Your task to perform on an android device: Go to Google Image 0: 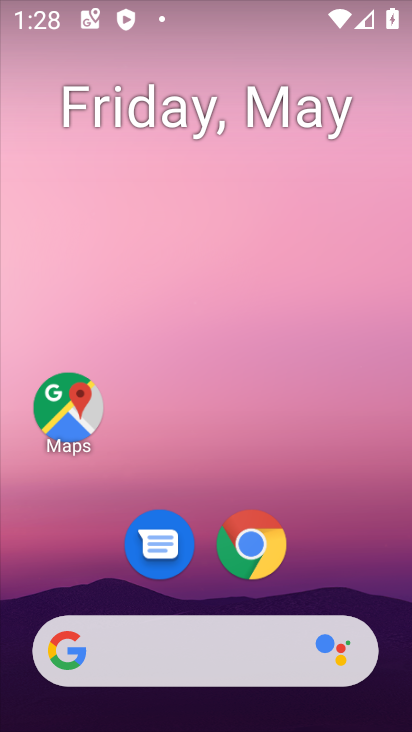
Step 0: drag from (226, 486) to (222, 2)
Your task to perform on an android device: Go to Google Image 1: 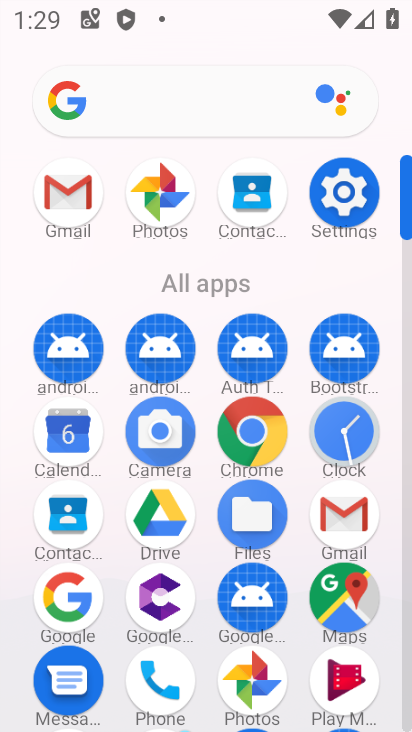
Step 1: click (77, 611)
Your task to perform on an android device: Go to Google Image 2: 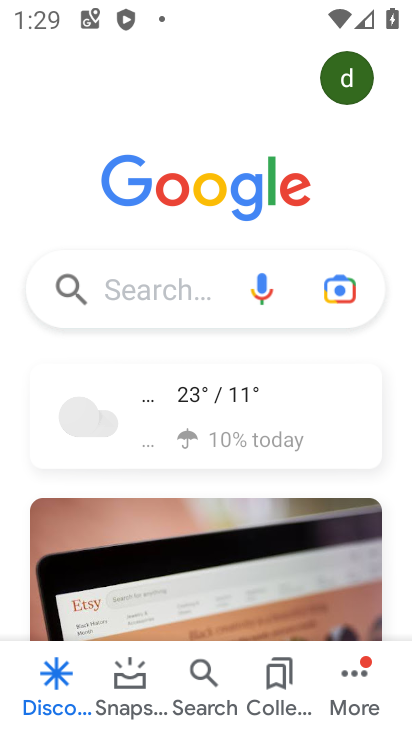
Step 2: task complete